Your task to perform on an android device: Open the web browser Image 0: 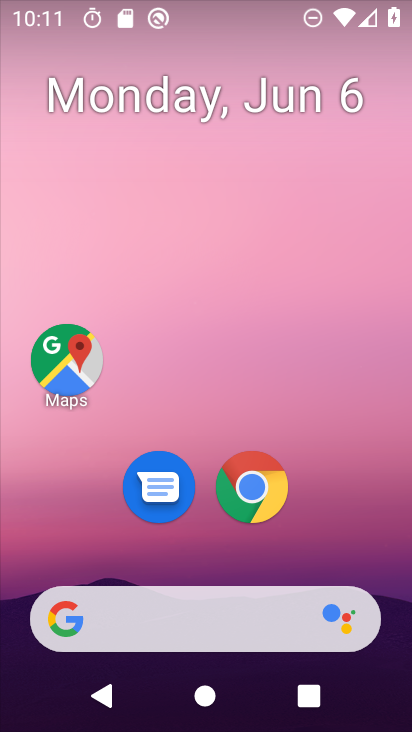
Step 0: drag from (390, 631) to (398, 323)
Your task to perform on an android device: Open the web browser Image 1: 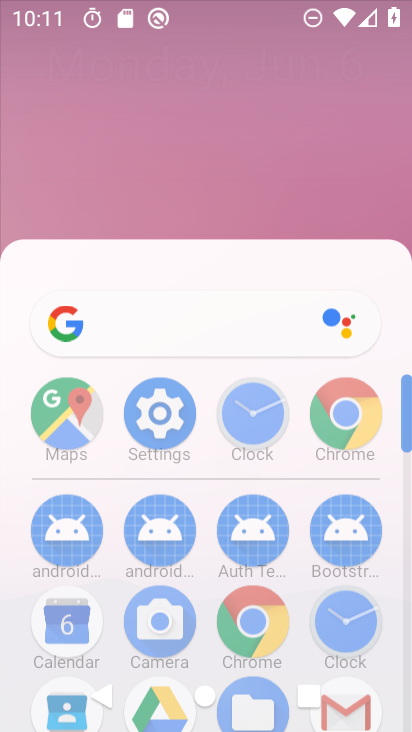
Step 1: click (398, 207)
Your task to perform on an android device: Open the web browser Image 2: 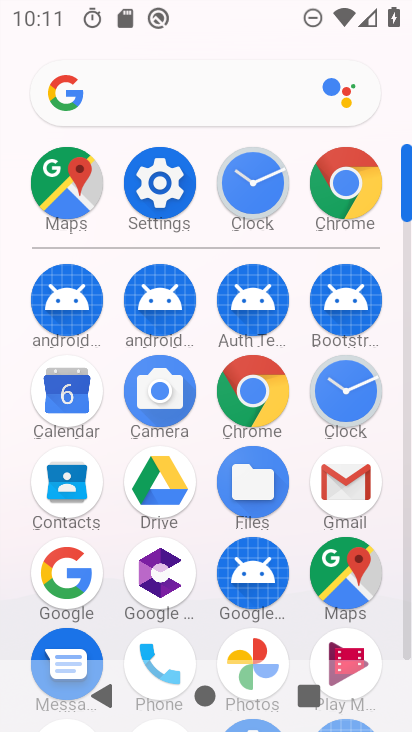
Step 2: click (78, 589)
Your task to perform on an android device: Open the web browser Image 3: 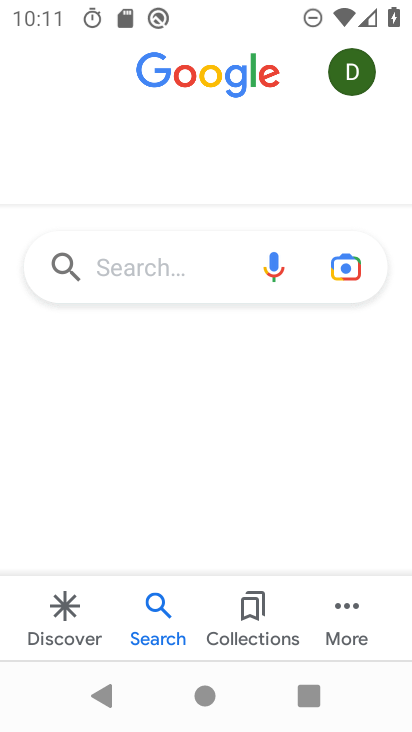
Step 3: click (180, 271)
Your task to perform on an android device: Open the web browser Image 4: 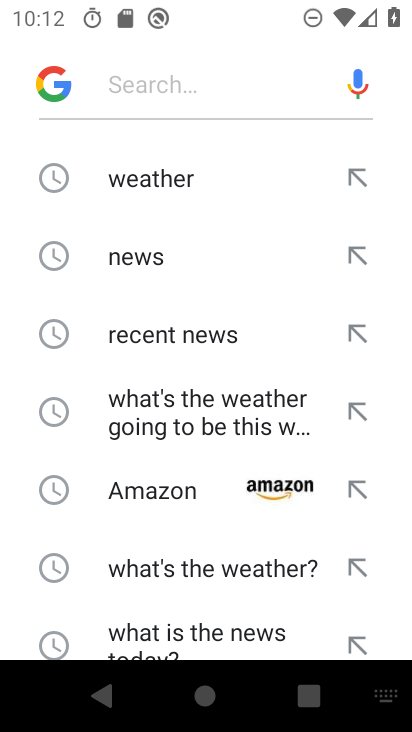
Step 4: type "web browser"
Your task to perform on an android device: Open the web browser Image 5: 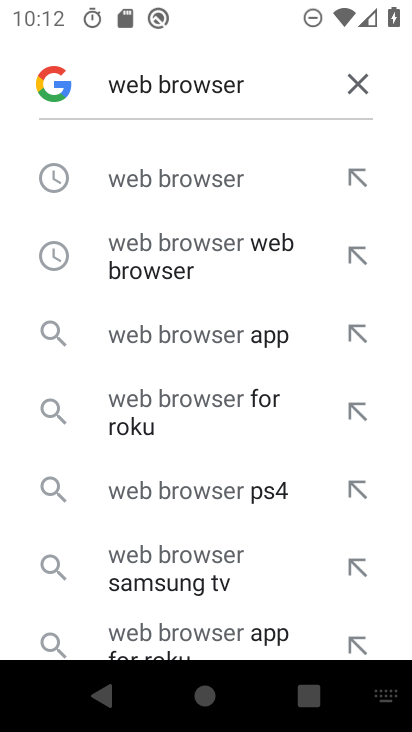
Step 5: click (181, 182)
Your task to perform on an android device: Open the web browser Image 6: 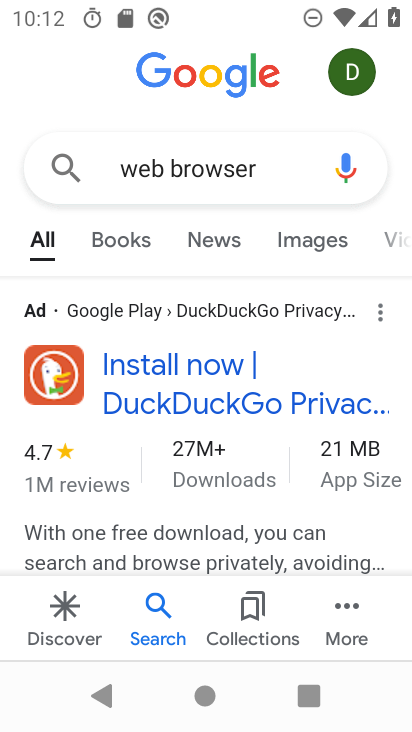
Step 6: task complete